Your task to perform on an android device: turn on location history Image 0: 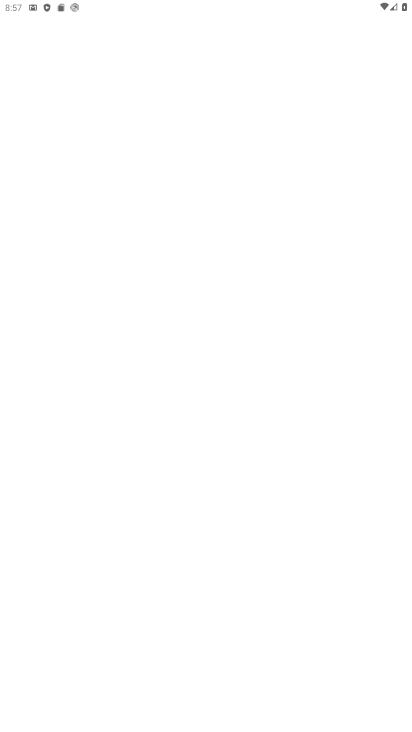
Step 0: click (141, 655)
Your task to perform on an android device: turn on location history Image 1: 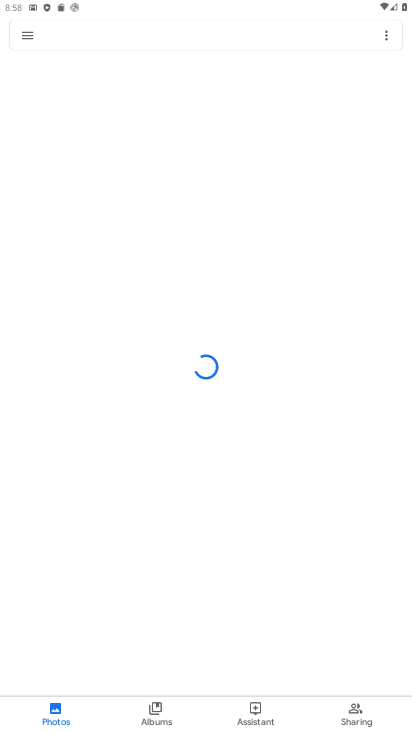
Step 1: press home button
Your task to perform on an android device: turn on location history Image 2: 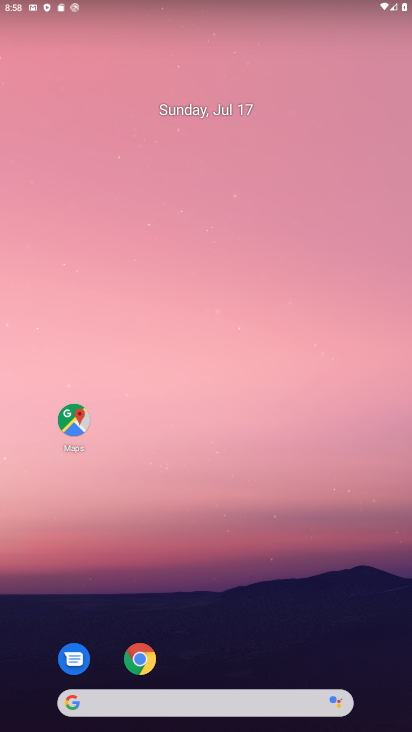
Step 2: drag from (202, 648) to (246, 160)
Your task to perform on an android device: turn on location history Image 3: 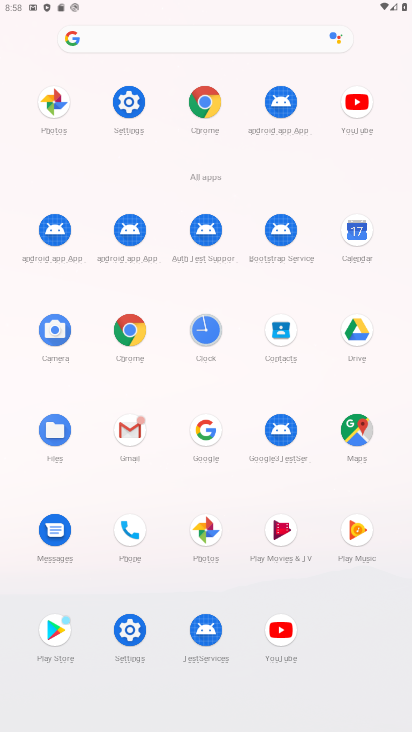
Step 3: click (121, 108)
Your task to perform on an android device: turn on location history Image 4: 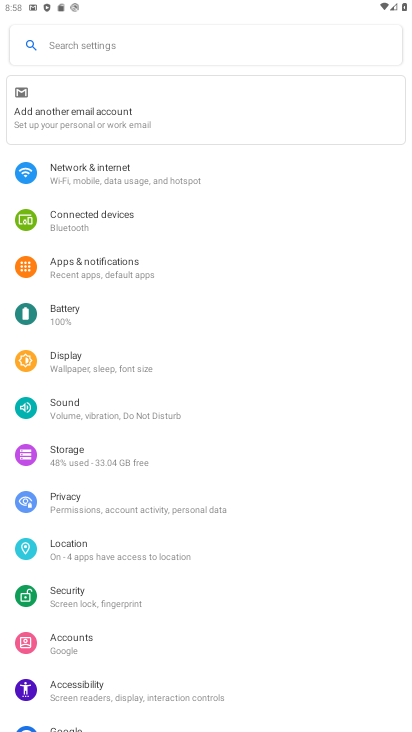
Step 4: click (80, 561)
Your task to perform on an android device: turn on location history Image 5: 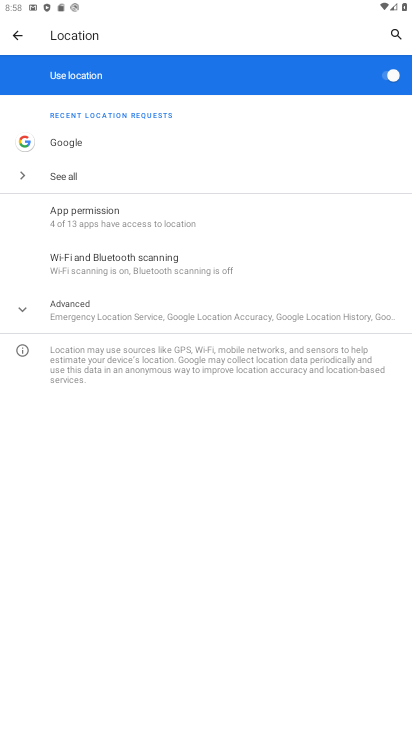
Step 5: click (154, 322)
Your task to perform on an android device: turn on location history Image 6: 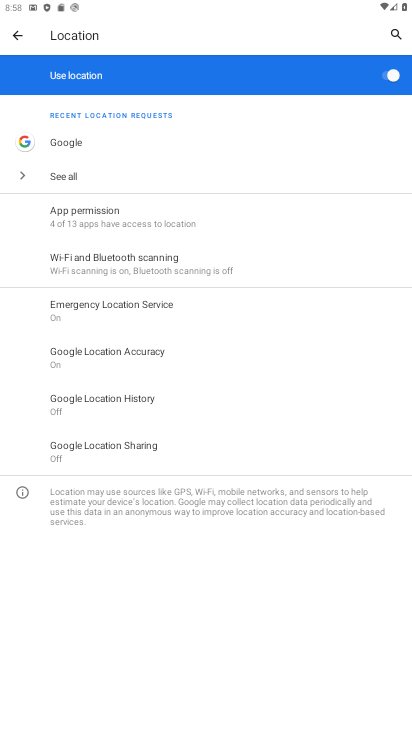
Step 6: click (142, 402)
Your task to perform on an android device: turn on location history Image 7: 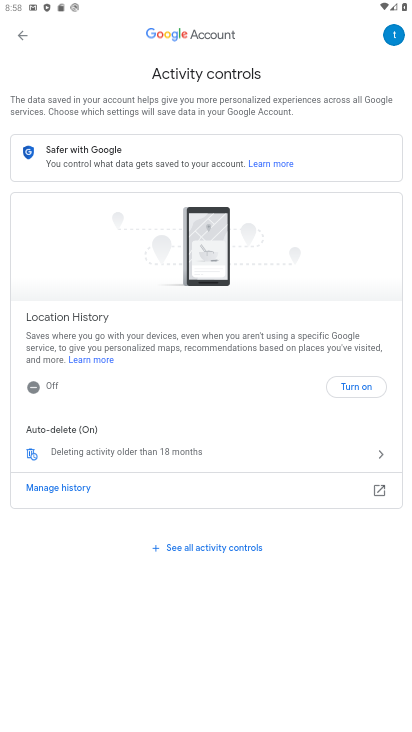
Step 7: click (368, 386)
Your task to perform on an android device: turn on location history Image 8: 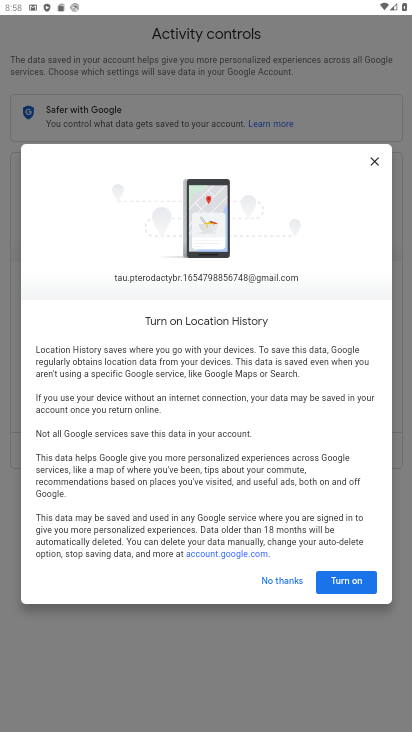
Step 8: click (330, 576)
Your task to perform on an android device: turn on location history Image 9: 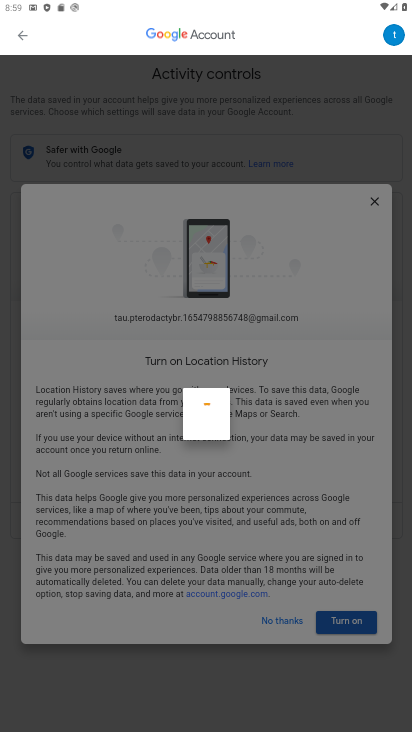
Step 9: click (330, 582)
Your task to perform on an android device: turn on location history Image 10: 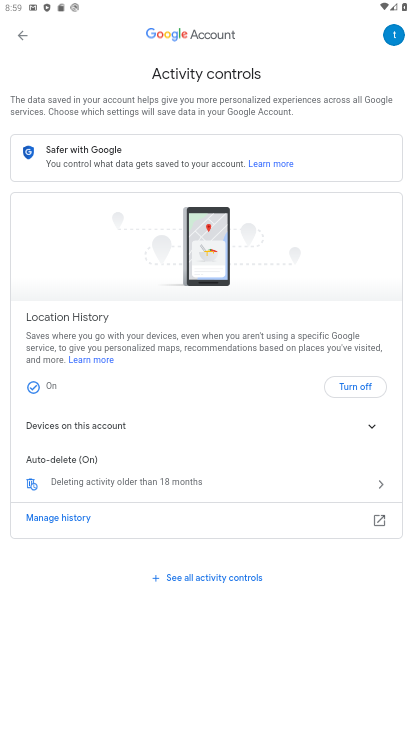
Step 10: task complete